Your task to perform on an android device: Add sony triple a to the cart on ebay.com, then select checkout. Image 0: 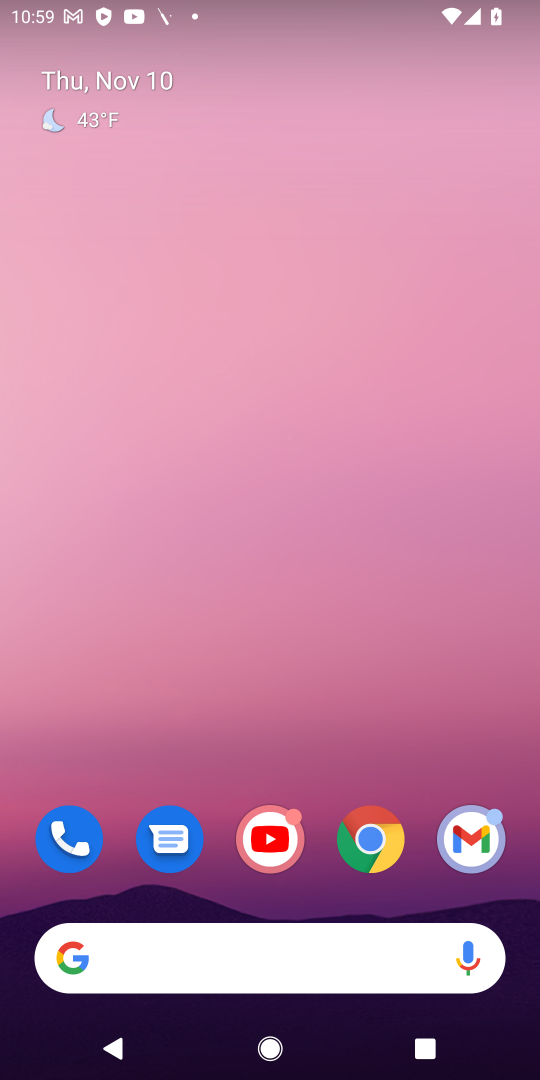
Step 0: click (374, 843)
Your task to perform on an android device: Add sony triple a to the cart on ebay.com, then select checkout. Image 1: 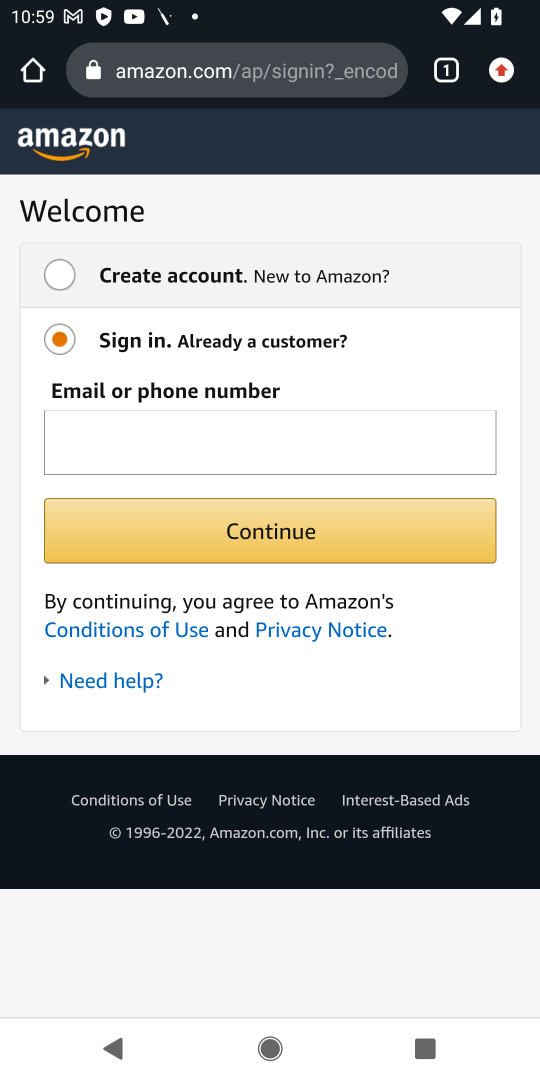
Step 1: click (266, 63)
Your task to perform on an android device: Add sony triple a to the cart on ebay.com, then select checkout. Image 2: 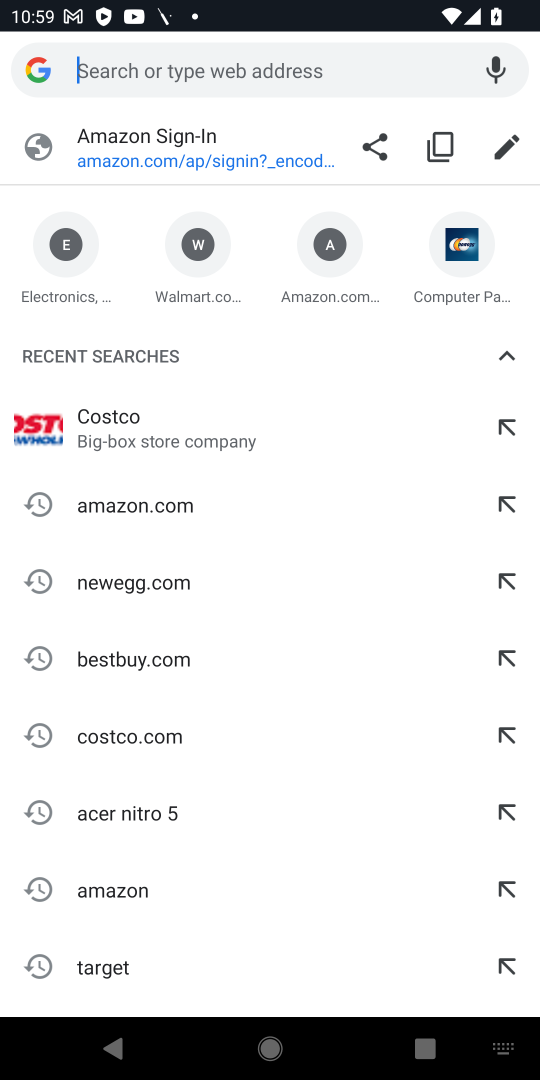
Step 2: press enter
Your task to perform on an android device: Add sony triple a to the cart on ebay.com, then select checkout. Image 3: 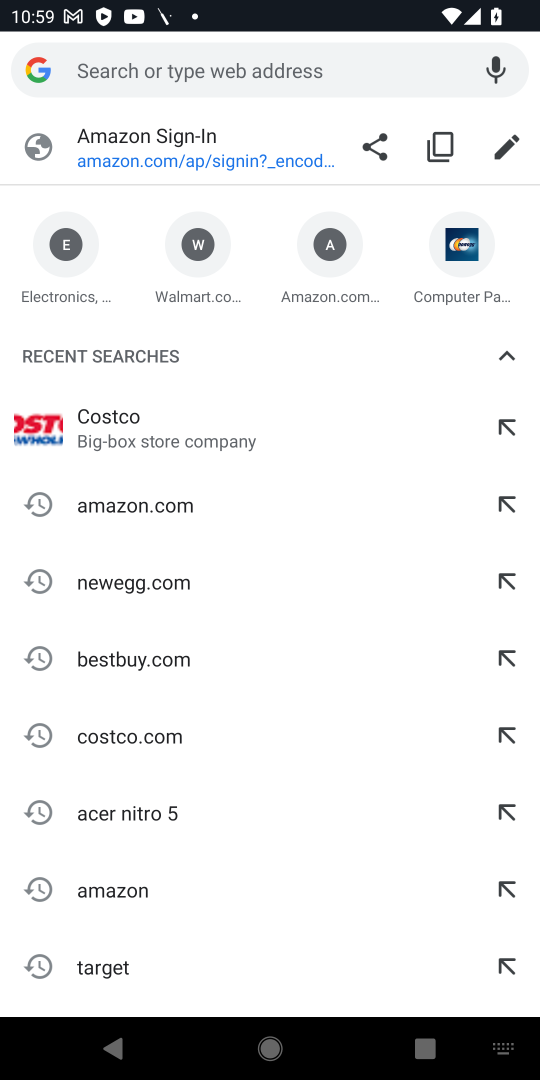
Step 3: type "ebay.com"
Your task to perform on an android device: Add sony triple a to the cart on ebay.com, then select checkout. Image 4: 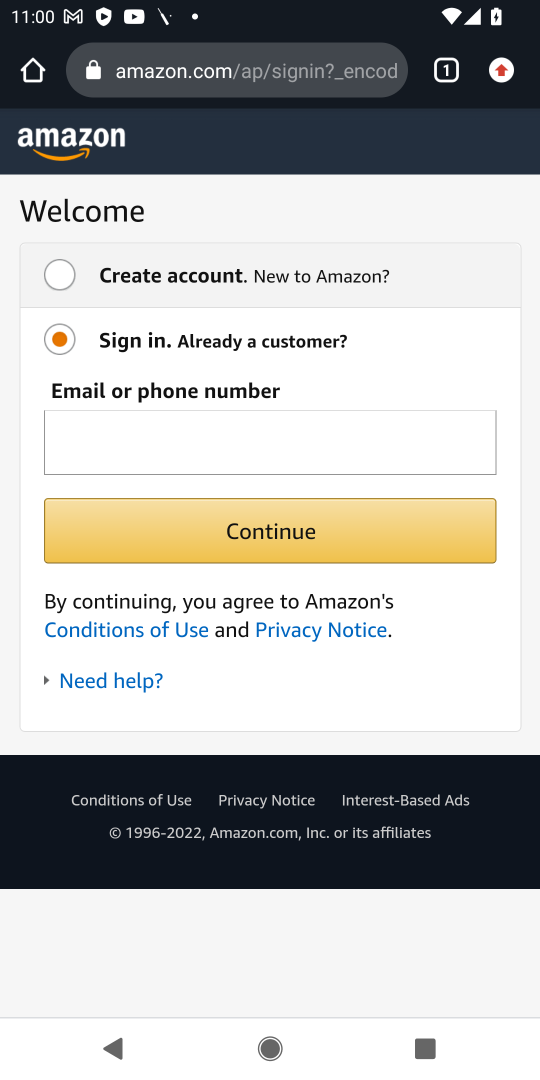
Step 4: click (266, 74)
Your task to perform on an android device: Add sony triple a to the cart on ebay.com, then select checkout. Image 5: 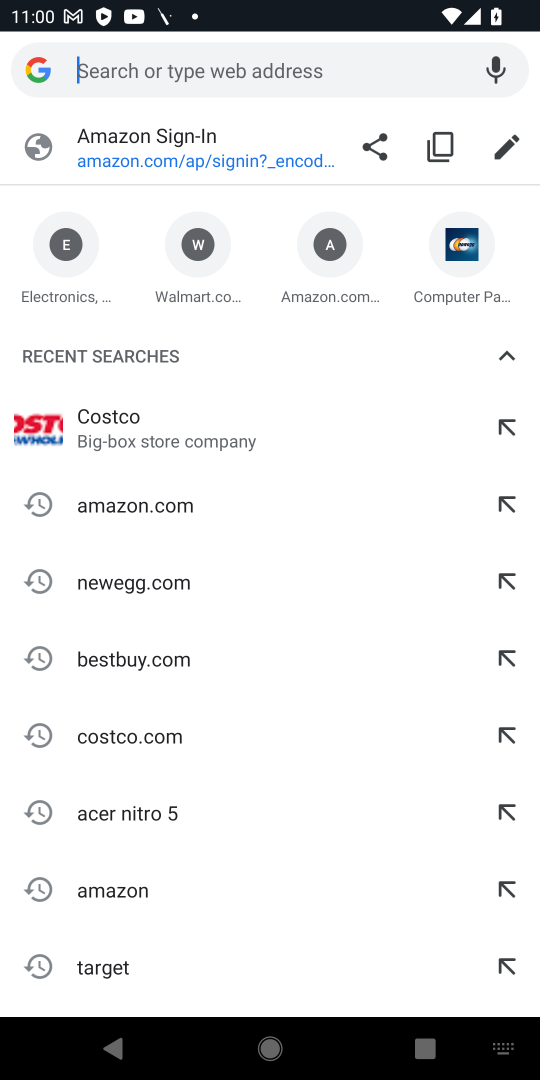
Step 5: drag from (149, 837) to (132, 474)
Your task to perform on an android device: Add sony triple a to the cart on ebay.com, then select checkout. Image 6: 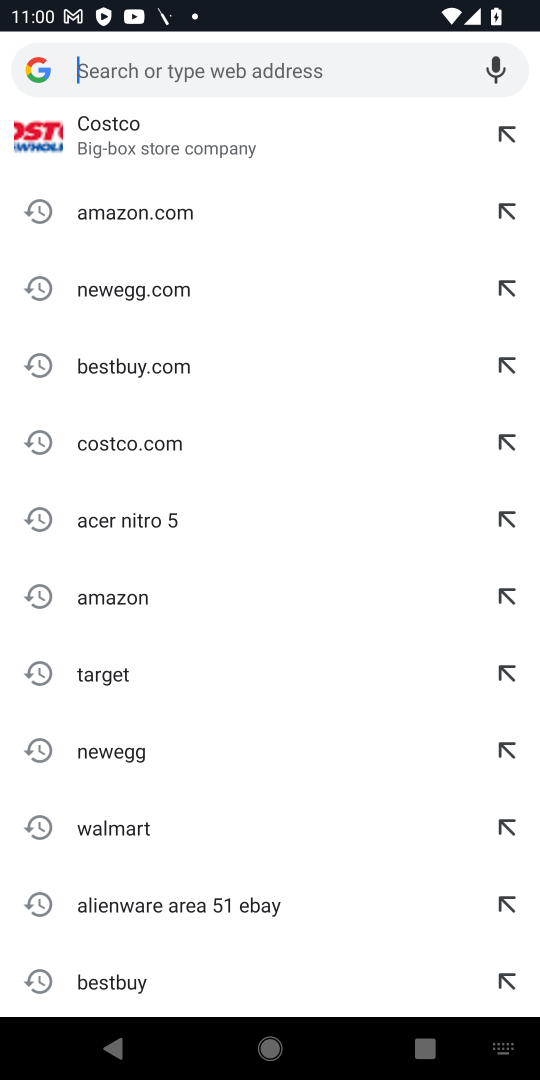
Step 6: type "ebay.com"
Your task to perform on an android device: Add sony triple a to the cart on ebay.com, then select checkout. Image 7: 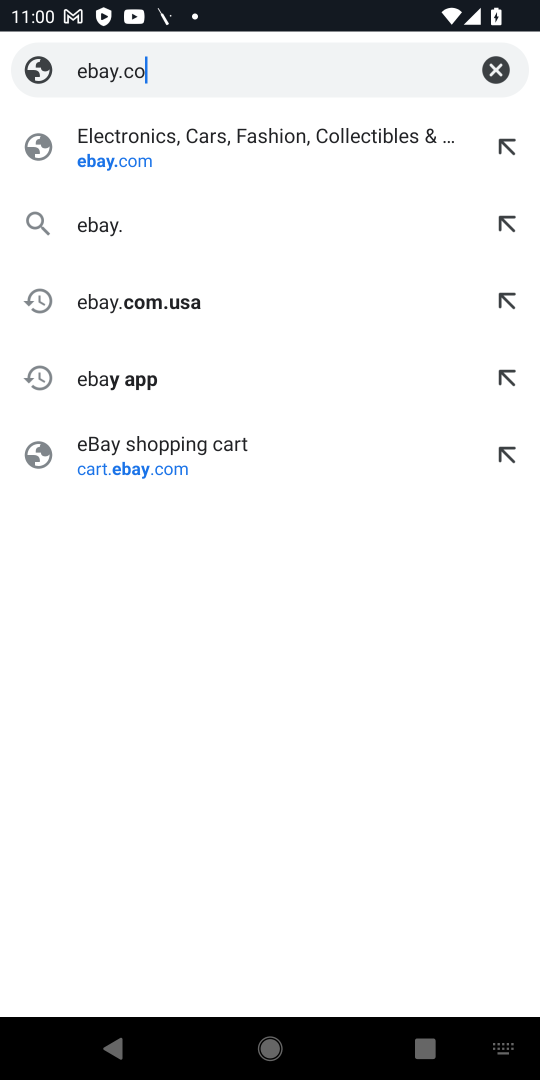
Step 7: press enter
Your task to perform on an android device: Add sony triple a to the cart on ebay.com, then select checkout. Image 8: 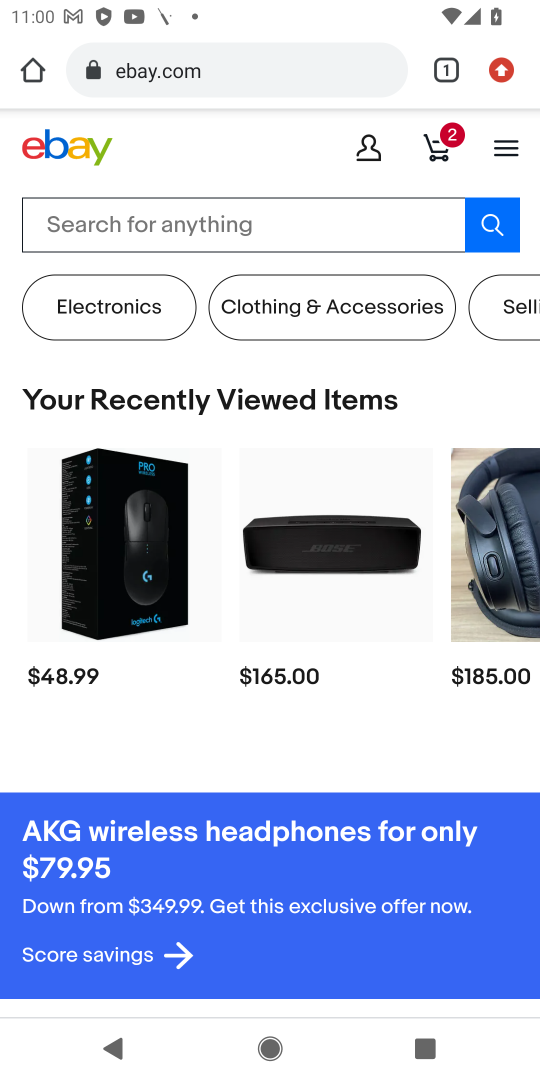
Step 8: click (352, 214)
Your task to perform on an android device: Add sony triple a to the cart on ebay.com, then select checkout. Image 9: 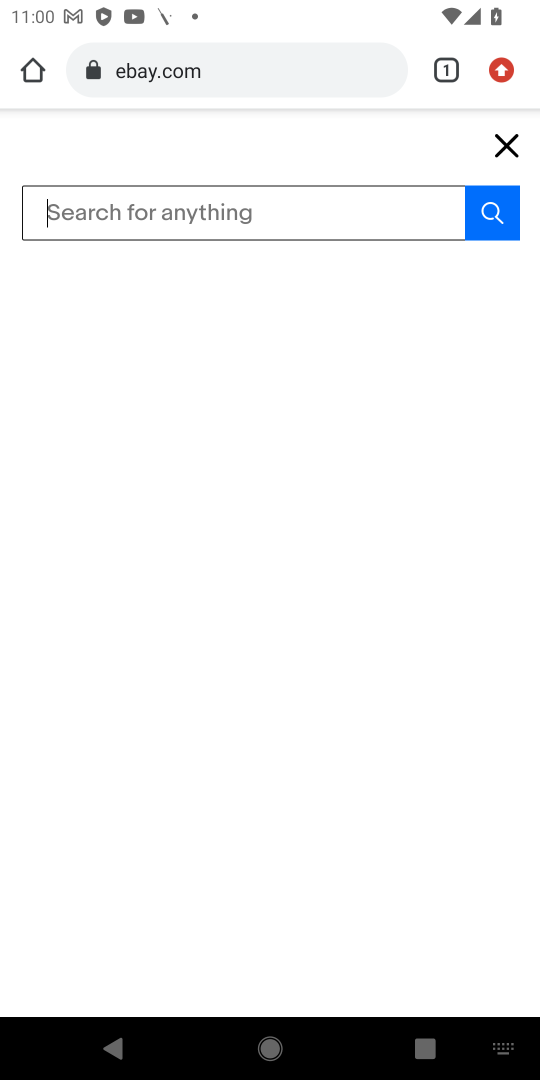
Step 9: type "sony triple a"
Your task to perform on an android device: Add sony triple a to the cart on ebay.com, then select checkout. Image 10: 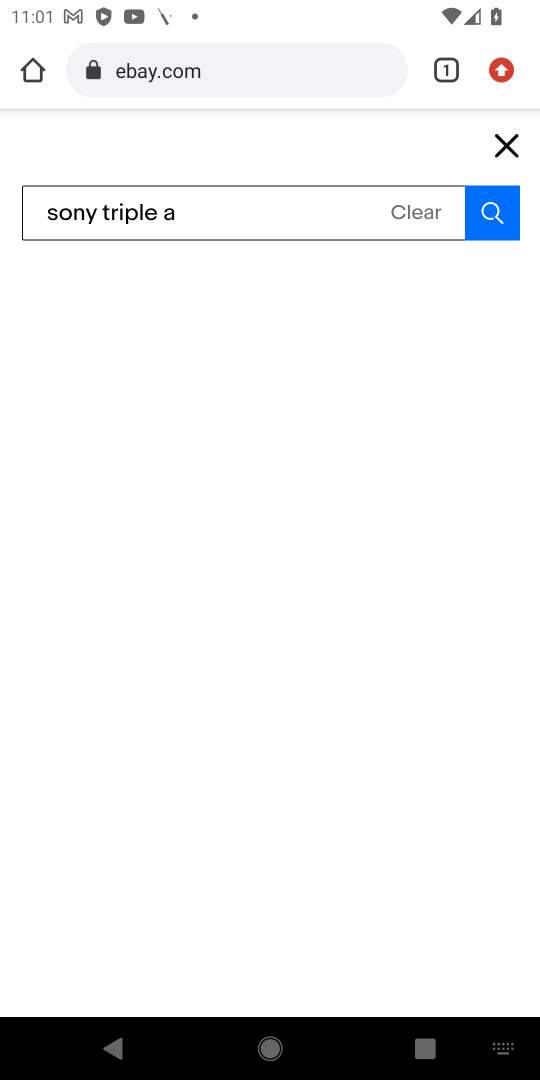
Step 10: click (367, 317)
Your task to perform on an android device: Add sony triple a to the cart on ebay.com, then select checkout. Image 11: 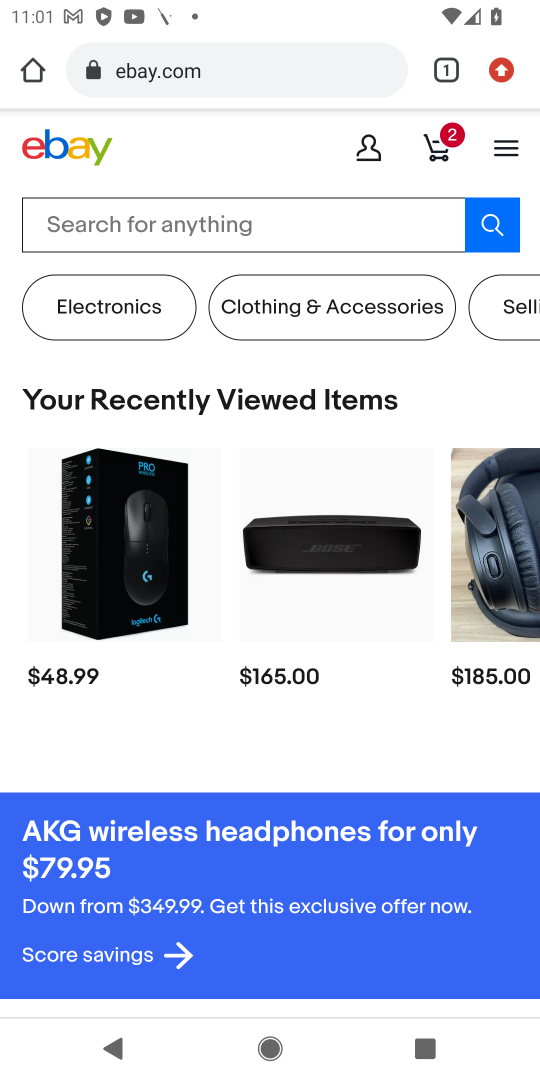
Step 11: click (321, 214)
Your task to perform on an android device: Add sony triple a to the cart on ebay.com, then select checkout. Image 12: 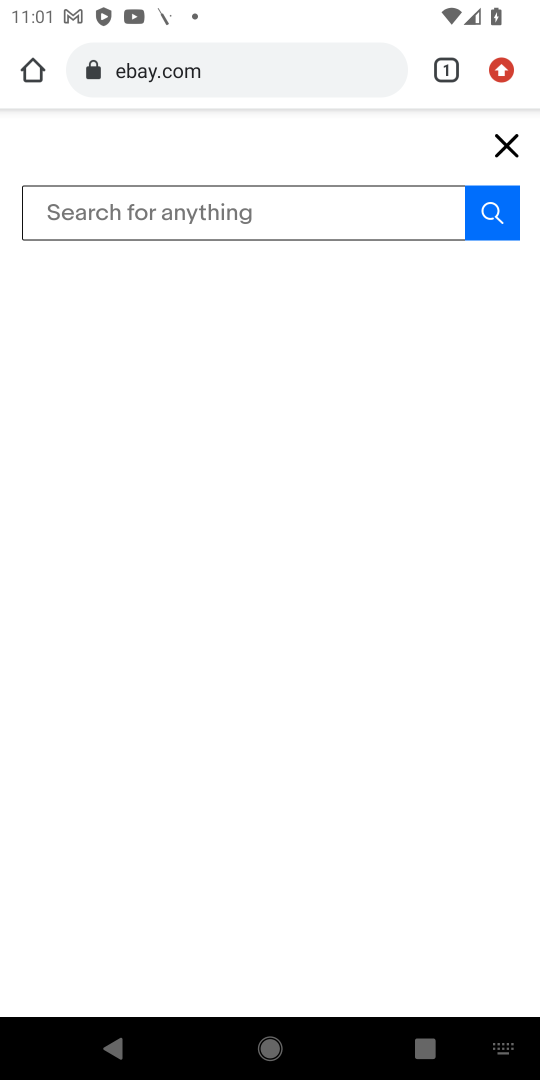
Step 12: type "sony triple a"
Your task to perform on an android device: Add sony triple a to the cart on ebay.com, then select checkout. Image 13: 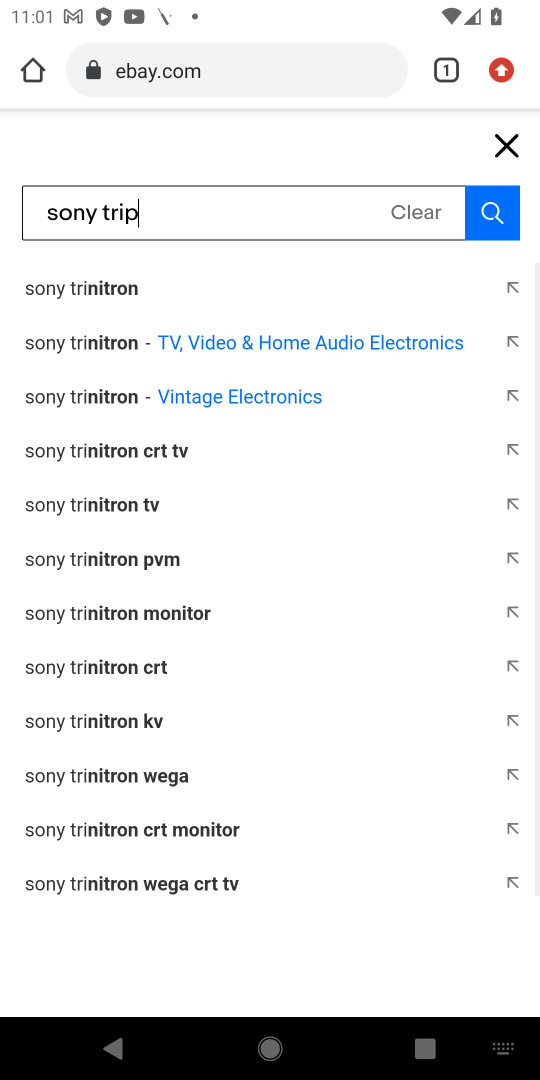
Step 13: press enter
Your task to perform on an android device: Add sony triple a to the cart on ebay.com, then select checkout. Image 14: 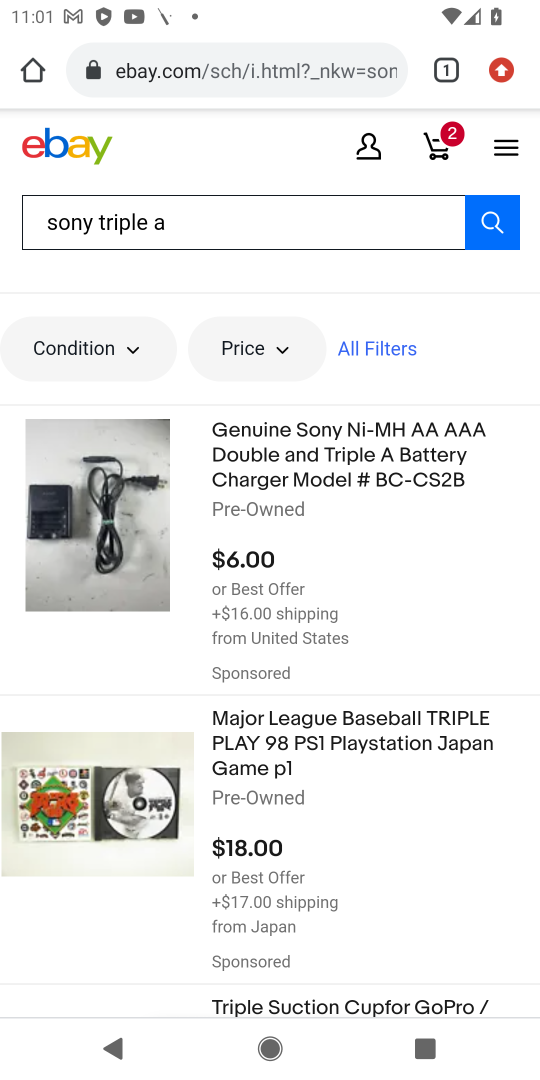
Step 14: click (102, 516)
Your task to perform on an android device: Add sony triple a to the cart on ebay.com, then select checkout. Image 15: 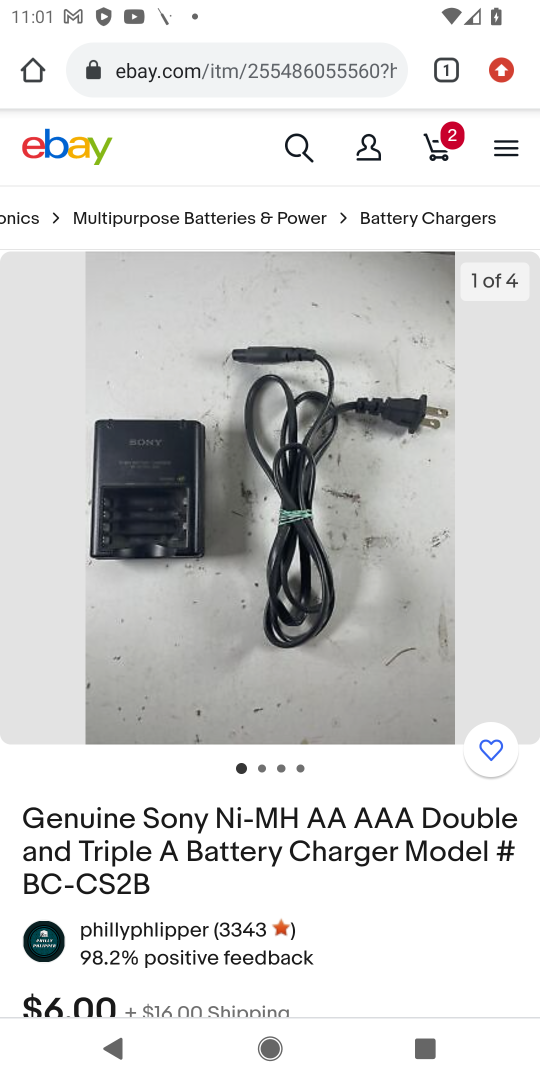
Step 15: drag from (366, 887) to (380, 370)
Your task to perform on an android device: Add sony triple a to the cart on ebay.com, then select checkout. Image 16: 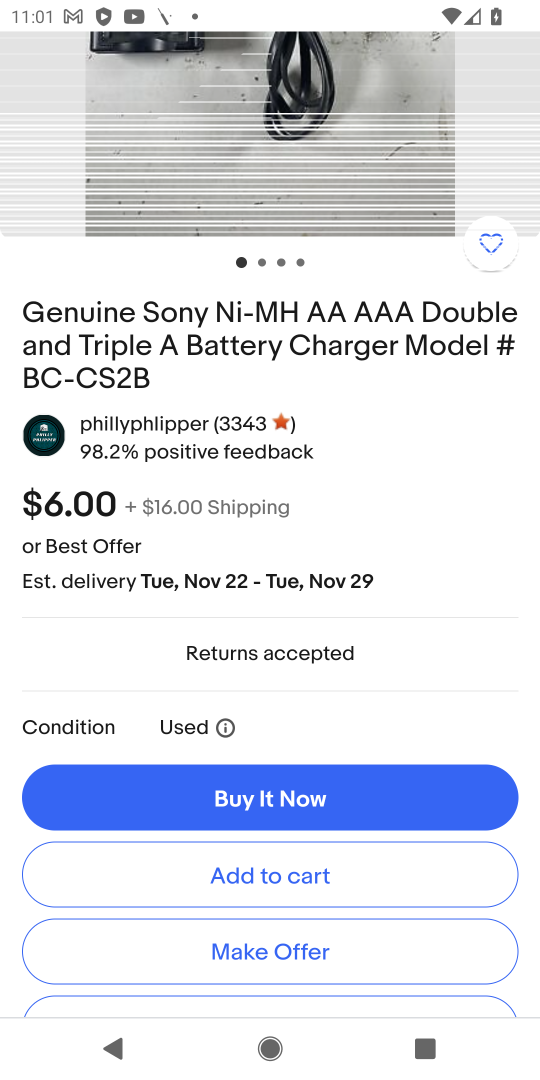
Step 16: click (298, 867)
Your task to perform on an android device: Add sony triple a to the cart on ebay.com, then select checkout. Image 17: 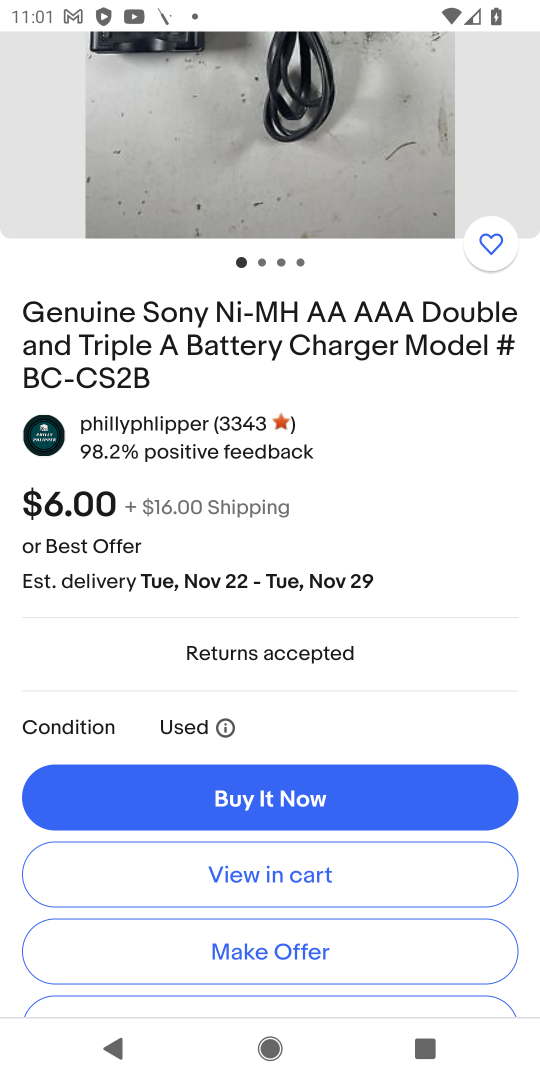
Step 17: click (277, 870)
Your task to perform on an android device: Add sony triple a to the cart on ebay.com, then select checkout. Image 18: 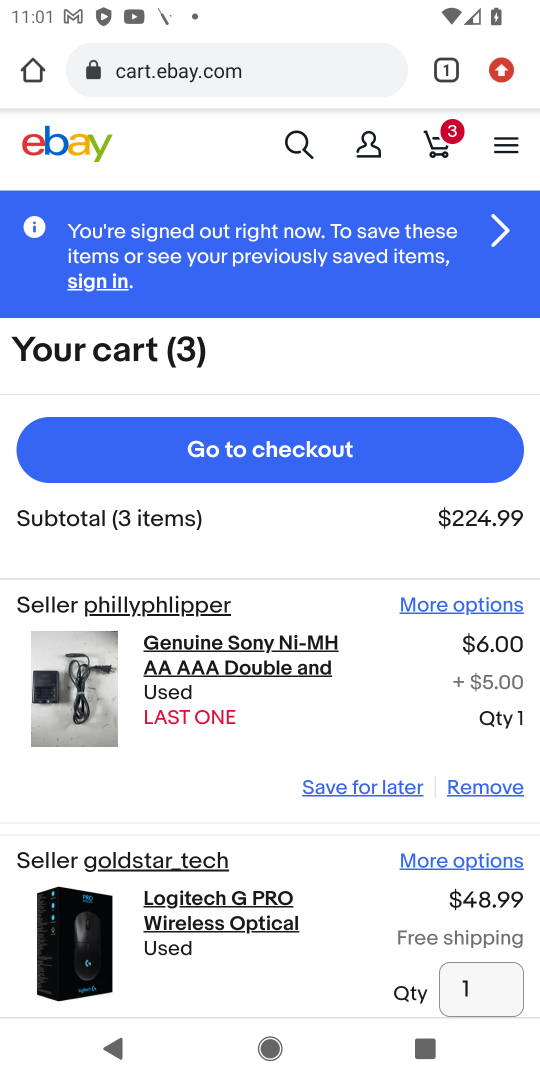
Step 18: click (303, 441)
Your task to perform on an android device: Add sony triple a to the cart on ebay.com, then select checkout. Image 19: 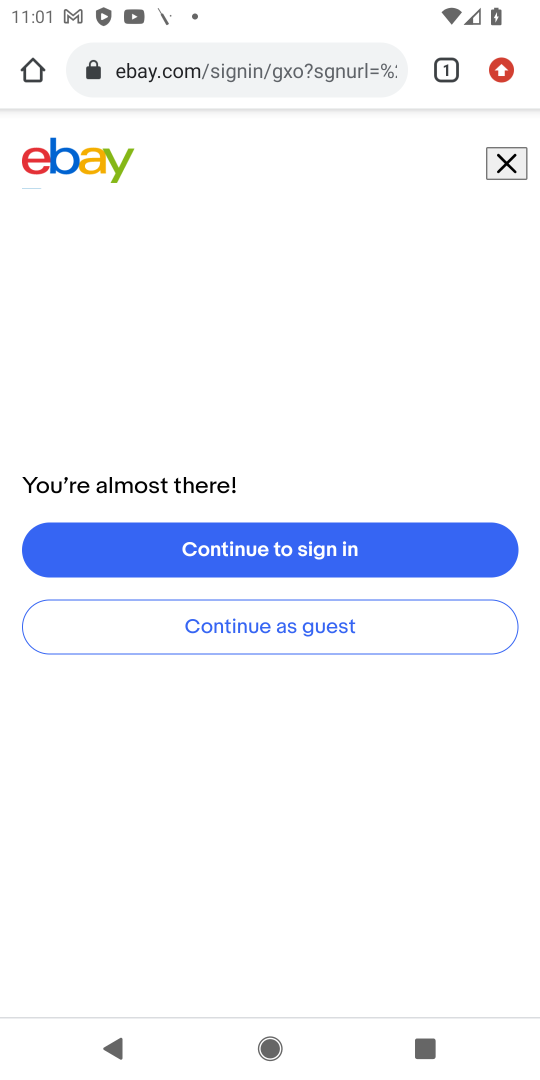
Step 19: task complete